Your task to perform on an android device: Go to settings Image 0: 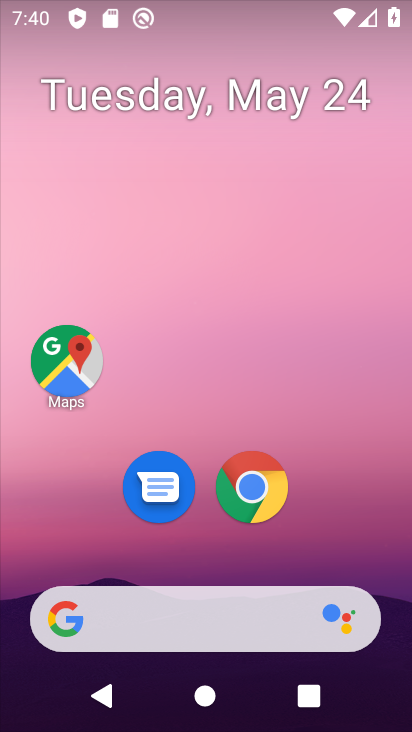
Step 0: drag from (335, 548) to (184, 23)
Your task to perform on an android device: Go to settings Image 1: 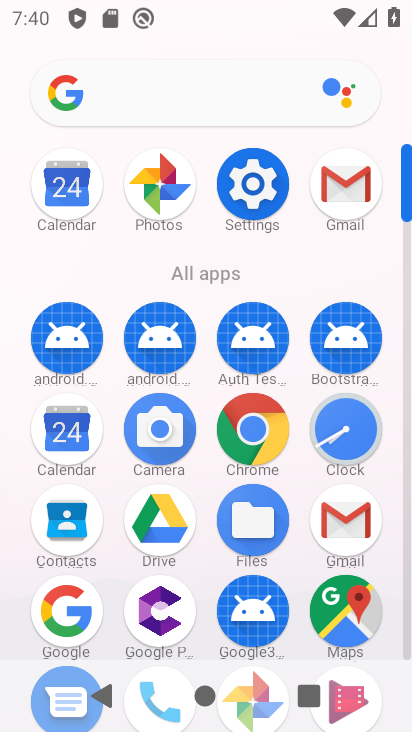
Step 1: click (265, 184)
Your task to perform on an android device: Go to settings Image 2: 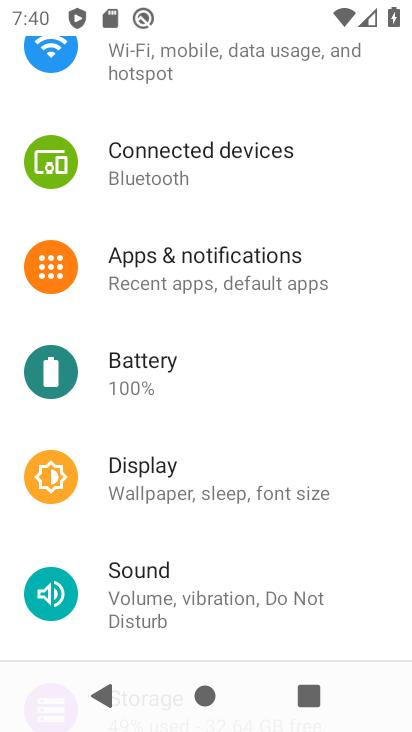
Step 2: task complete